Your task to perform on an android device: Go to sound settings Image 0: 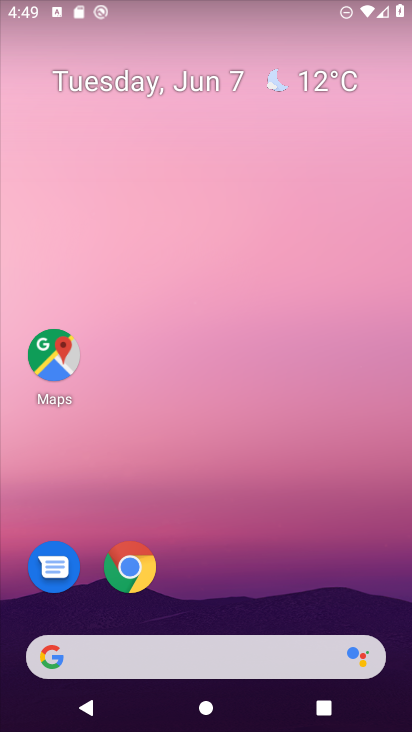
Step 0: drag from (171, 659) to (235, 19)
Your task to perform on an android device: Go to sound settings Image 1: 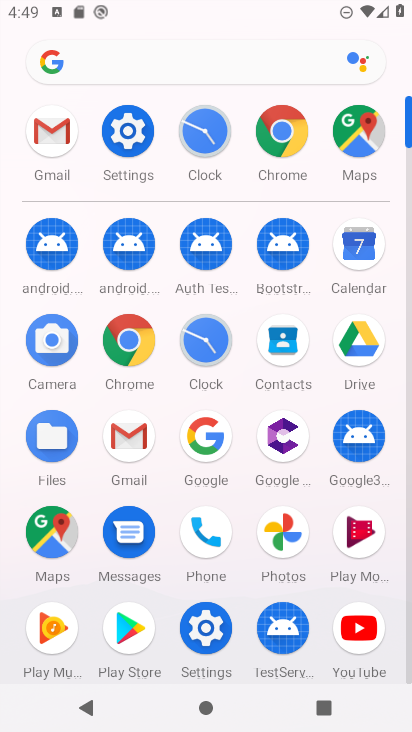
Step 1: click (105, 140)
Your task to perform on an android device: Go to sound settings Image 2: 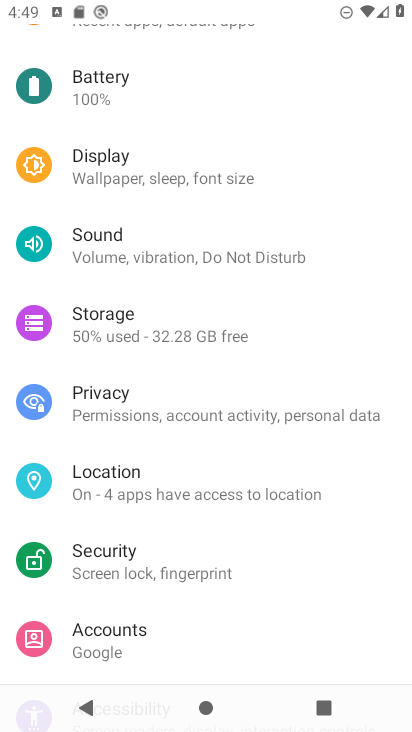
Step 2: click (123, 257)
Your task to perform on an android device: Go to sound settings Image 3: 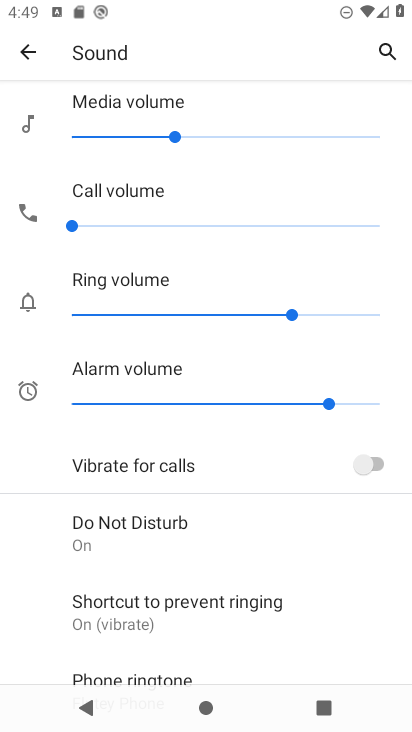
Step 3: task complete